Your task to perform on an android device: find photos in the google photos app Image 0: 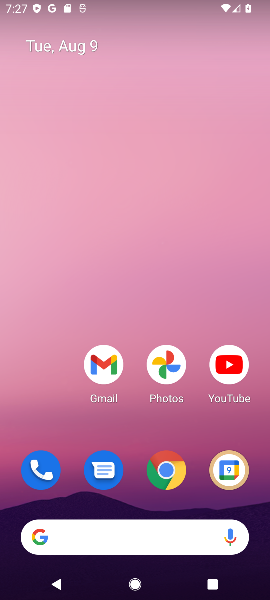
Step 0: click (162, 373)
Your task to perform on an android device: find photos in the google photos app Image 1: 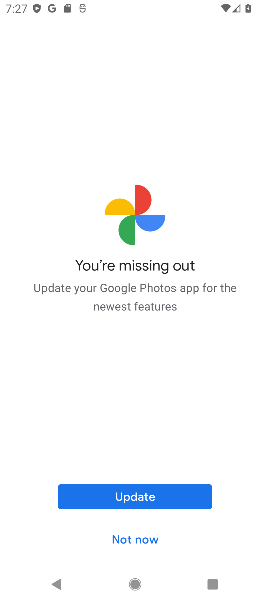
Step 1: click (161, 499)
Your task to perform on an android device: find photos in the google photos app Image 2: 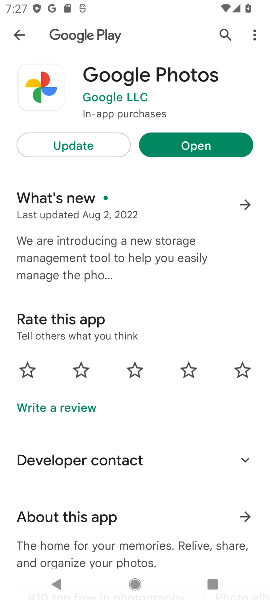
Step 2: click (58, 141)
Your task to perform on an android device: find photos in the google photos app Image 3: 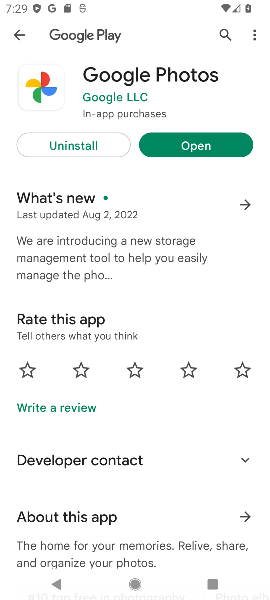
Step 3: click (189, 151)
Your task to perform on an android device: find photos in the google photos app Image 4: 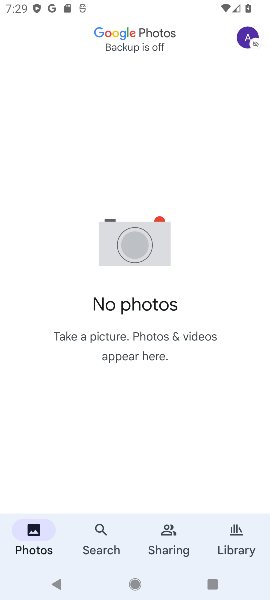
Step 4: click (101, 542)
Your task to perform on an android device: find photos in the google photos app Image 5: 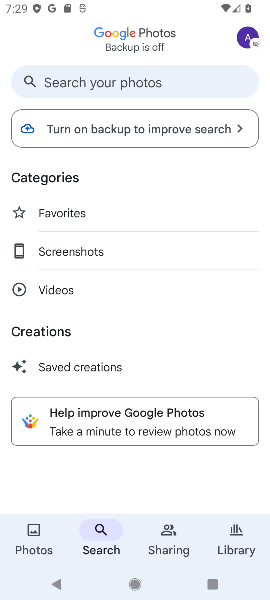
Step 5: task complete